Your task to perform on an android device: Open the calendar and show me this week's events? Image 0: 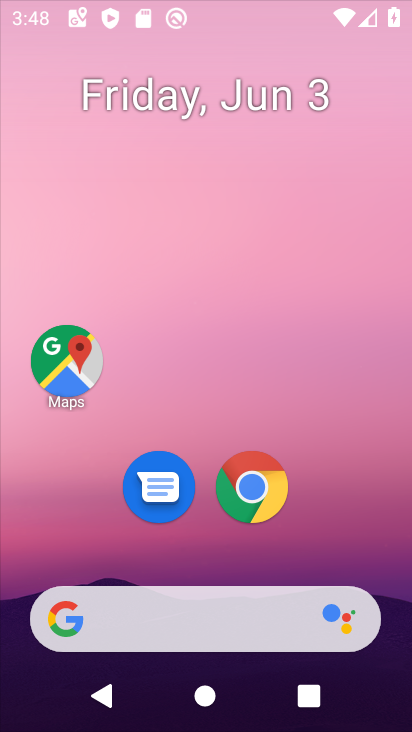
Step 0: drag from (219, 542) to (232, 23)
Your task to perform on an android device: Open the calendar and show me this week's events? Image 1: 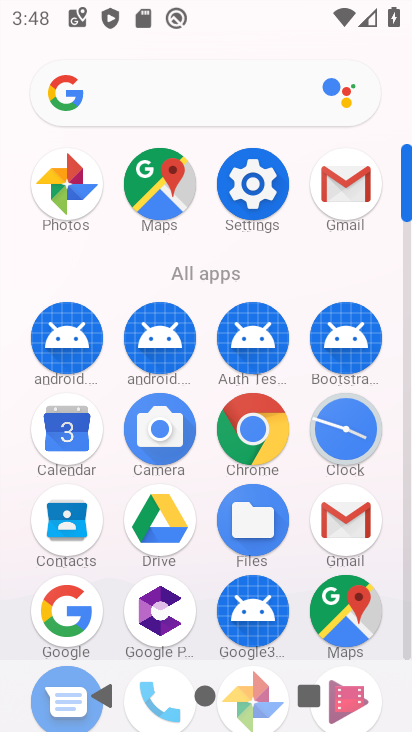
Step 1: click (63, 443)
Your task to perform on an android device: Open the calendar and show me this week's events? Image 2: 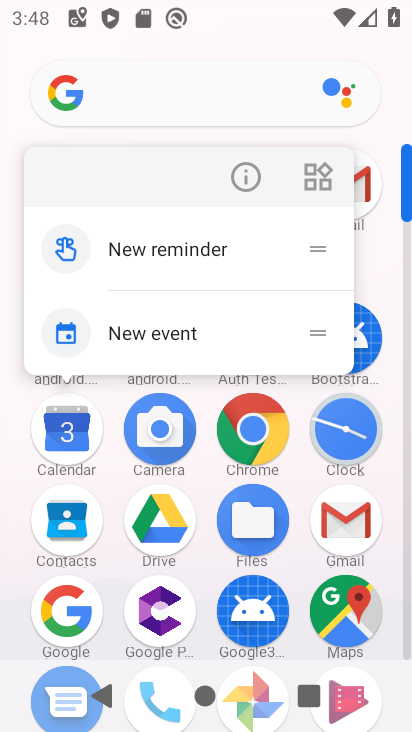
Step 2: click (258, 183)
Your task to perform on an android device: Open the calendar and show me this week's events? Image 3: 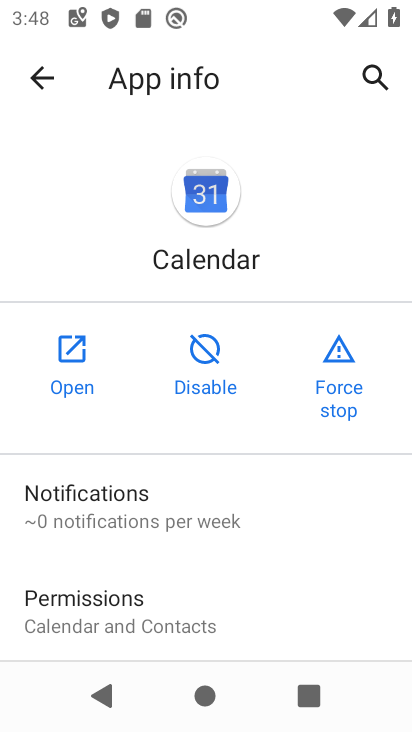
Step 3: click (67, 359)
Your task to perform on an android device: Open the calendar and show me this week's events? Image 4: 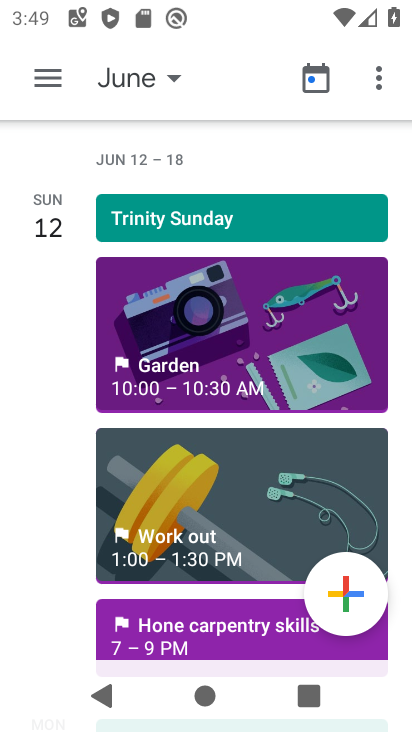
Step 4: click (150, 83)
Your task to perform on an android device: Open the calendar and show me this week's events? Image 5: 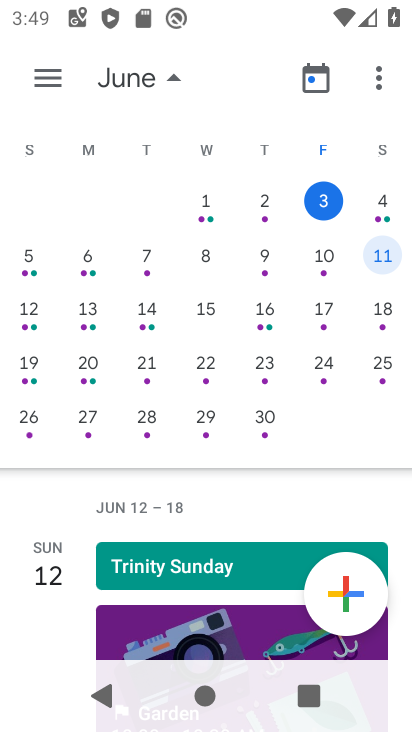
Step 5: click (321, 259)
Your task to perform on an android device: Open the calendar and show me this week's events? Image 6: 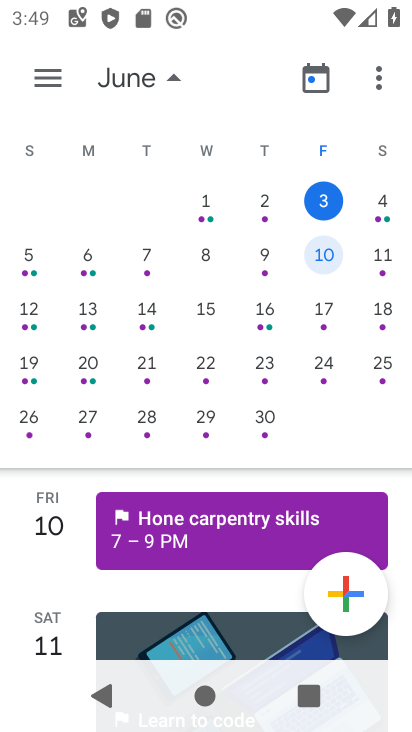
Step 6: click (388, 195)
Your task to perform on an android device: Open the calendar and show me this week's events? Image 7: 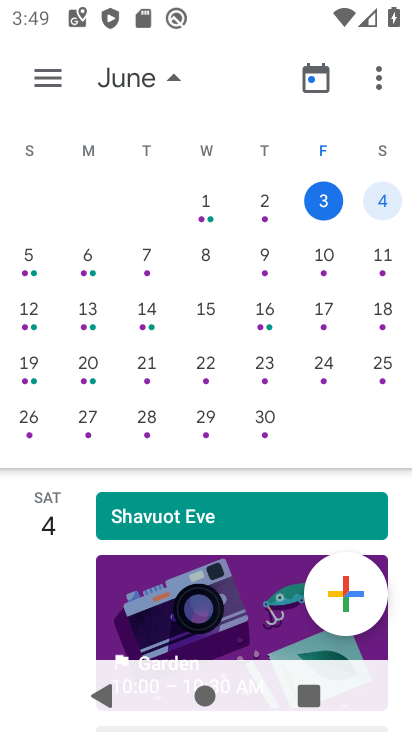
Step 7: task complete